Your task to perform on an android device: Go to ESPN.com Image 0: 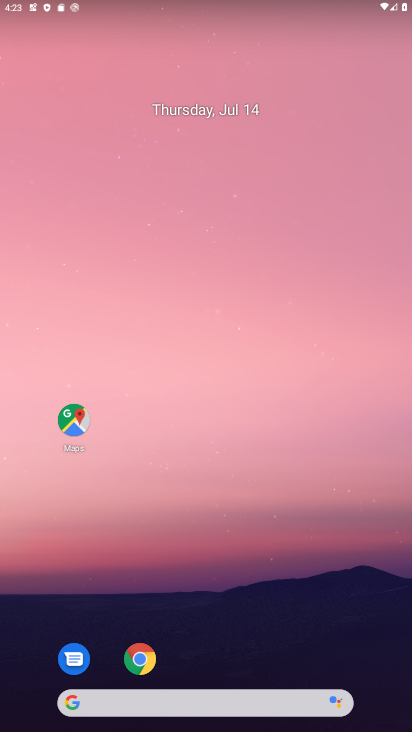
Step 0: click (144, 661)
Your task to perform on an android device: Go to ESPN.com Image 1: 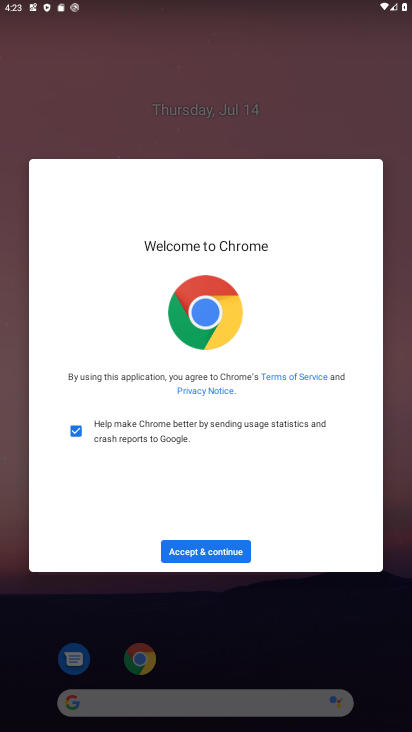
Step 1: click (209, 546)
Your task to perform on an android device: Go to ESPN.com Image 2: 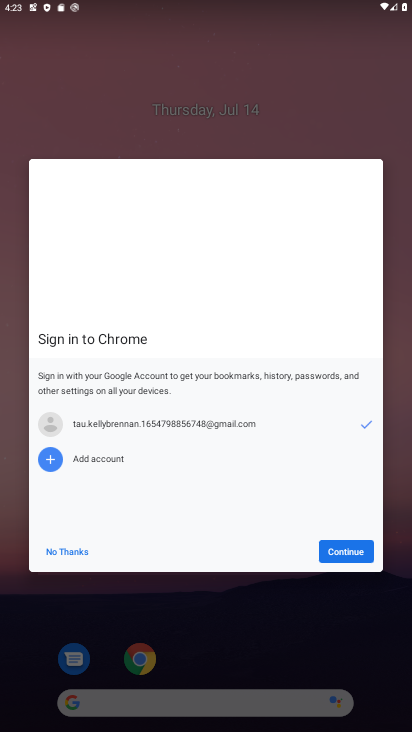
Step 2: click (341, 546)
Your task to perform on an android device: Go to ESPN.com Image 3: 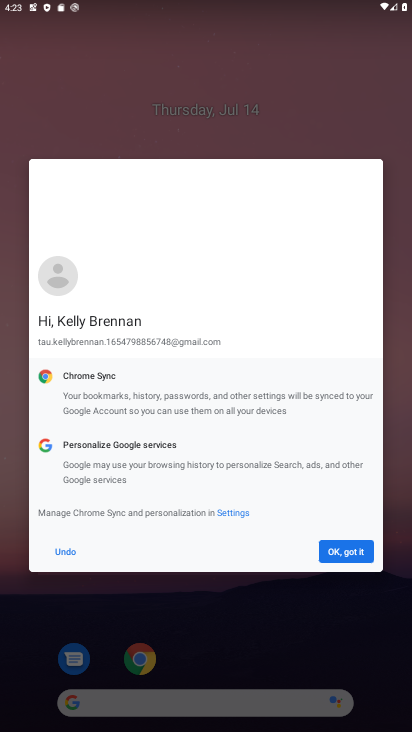
Step 3: click (348, 548)
Your task to perform on an android device: Go to ESPN.com Image 4: 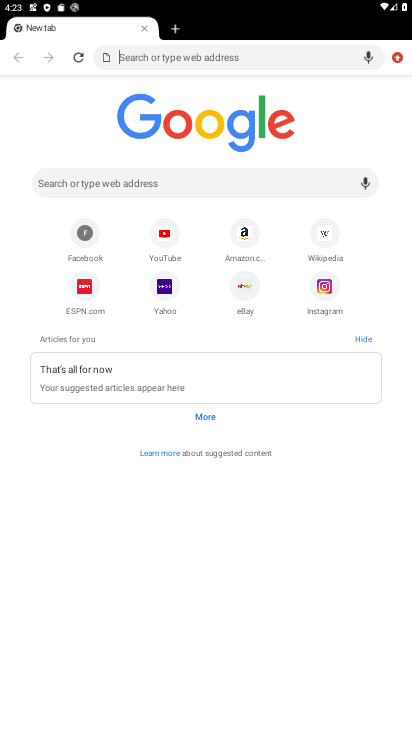
Step 4: click (83, 281)
Your task to perform on an android device: Go to ESPN.com Image 5: 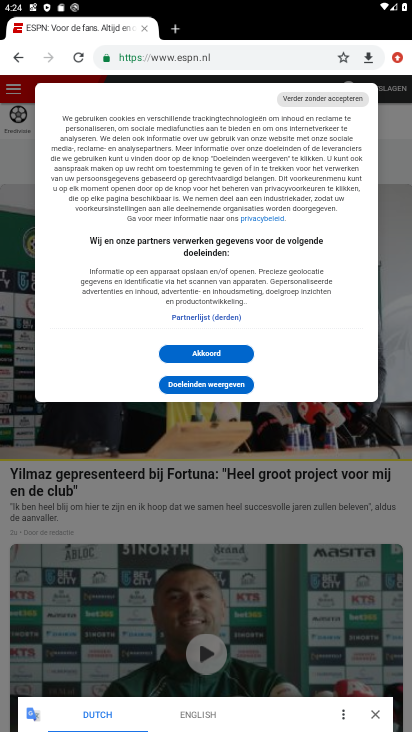
Step 5: click (205, 348)
Your task to perform on an android device: Go to ESPN.com Image 6: 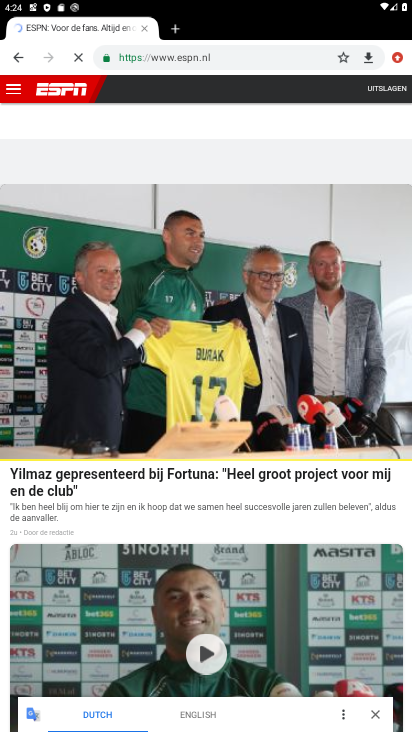
Step 6: task complete